Your task to perform on an android device: Open battery settings Image 0: 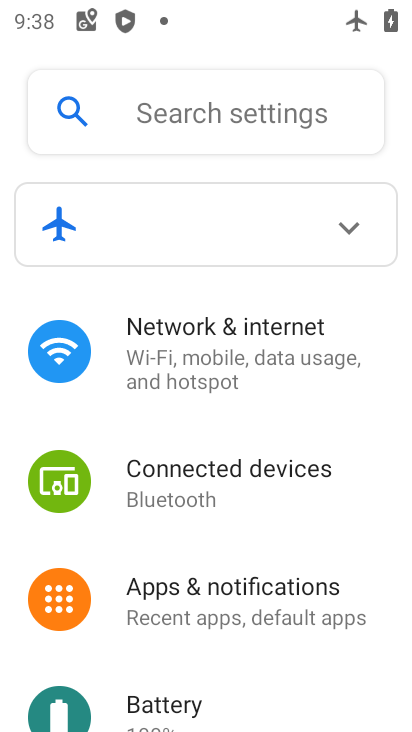
Step 0: drag from (182, 620) to (201, 100)
Your task to perform on an android device: Open battery settings Image 1: 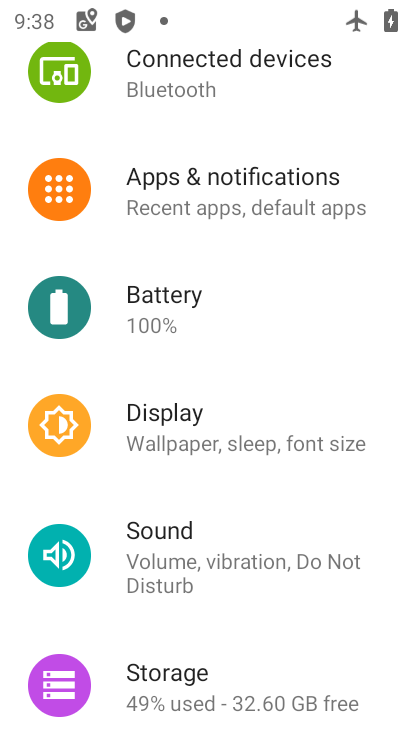
Step 1: click (236, 274)
Your task to perform on an android device: Open battery settings Image 2: 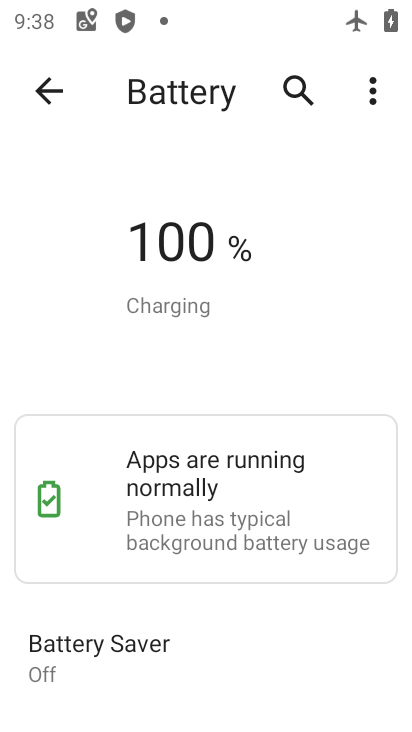
Step 2: press home button
Your task to perform on an android device: Open battery settings Image 3: 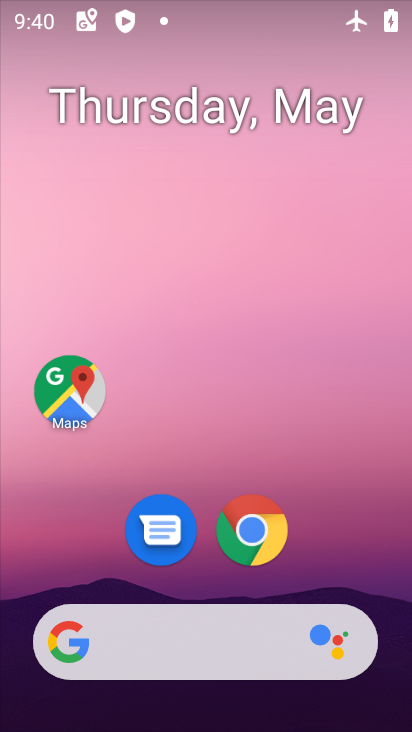
Step 3: drag from (139, 681) to (226, 41)
Your task to perform on an android device: Open battery settings Image 4: 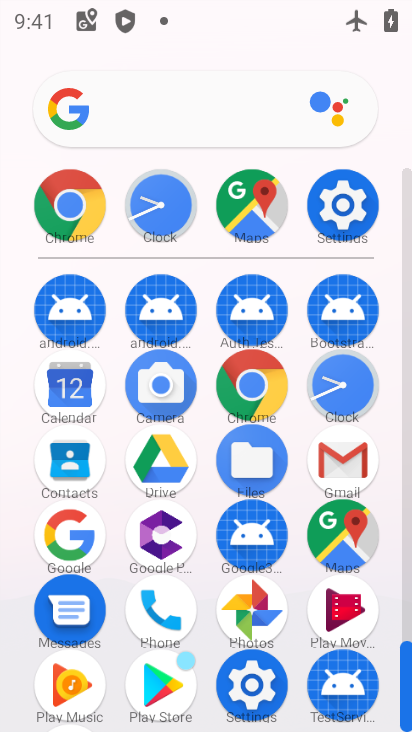
Step 4: click (338, 200)
Your task to perform on an android device: Open battery settings Image 5: 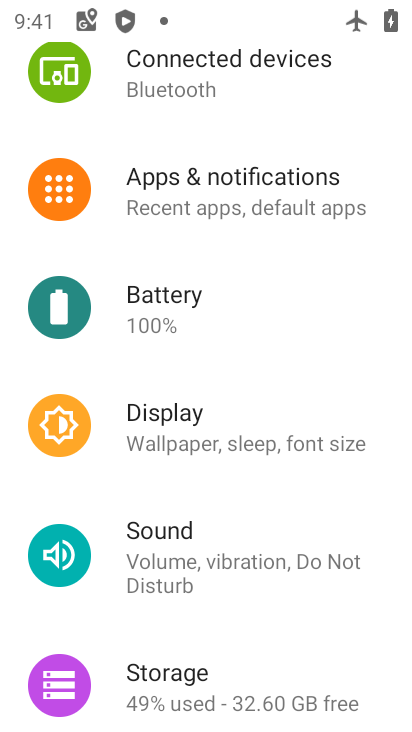
Step 5: click (238, 332)
Your task to perform on an android device: Open battery settings Image 6: 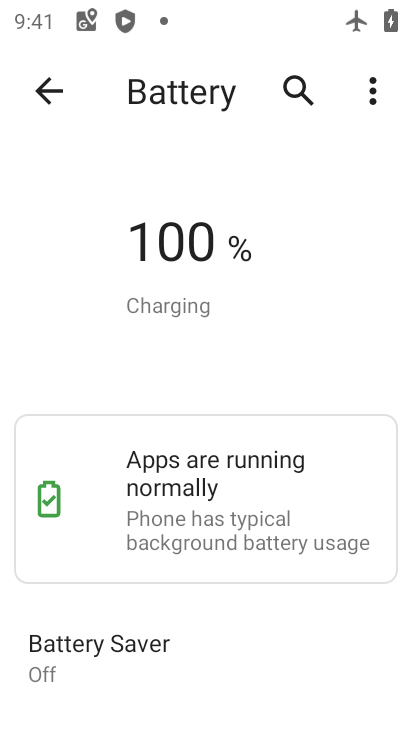
Step 6: task complete